Your task to perform on an android device: Go to privacy settings Image 0: 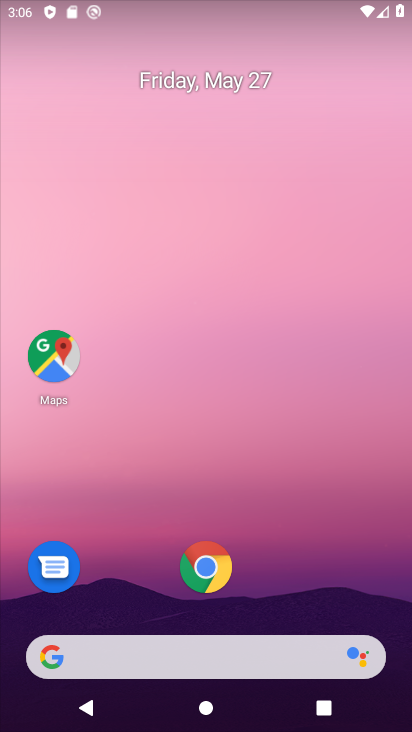
Step 0: drag from (149, 610) to (217, 65)
Your task to perform on an android device: Go to privacy settings Image 1: 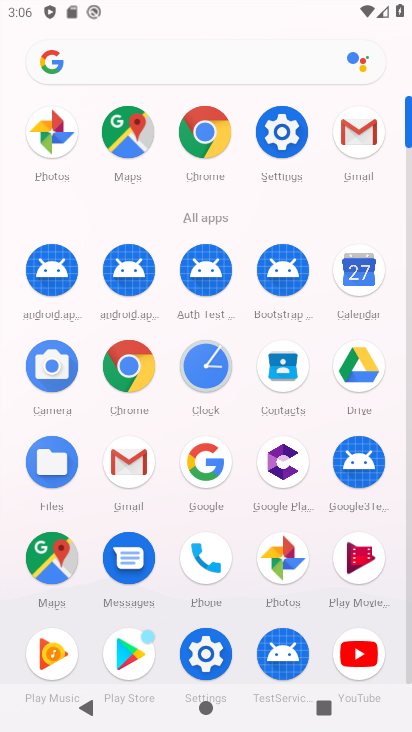
Step 1: click (277, 126)
Your task to perform on an android device: Go to privacy settings Image 2: 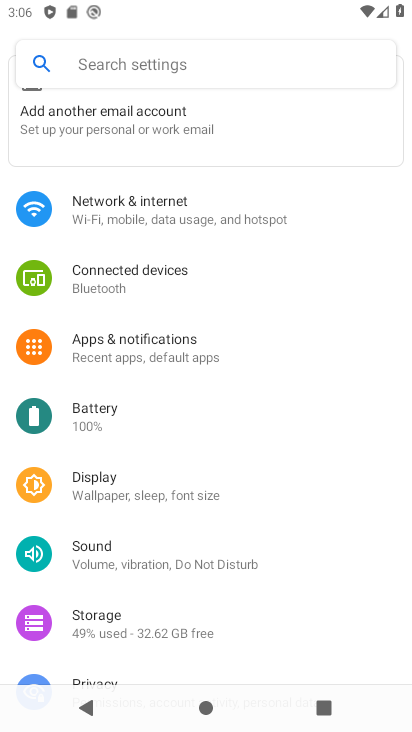
Step 2: drag from (126, 651) to (190, 302)
Your task to perform on an android device: Go to privacy settings Image 3: 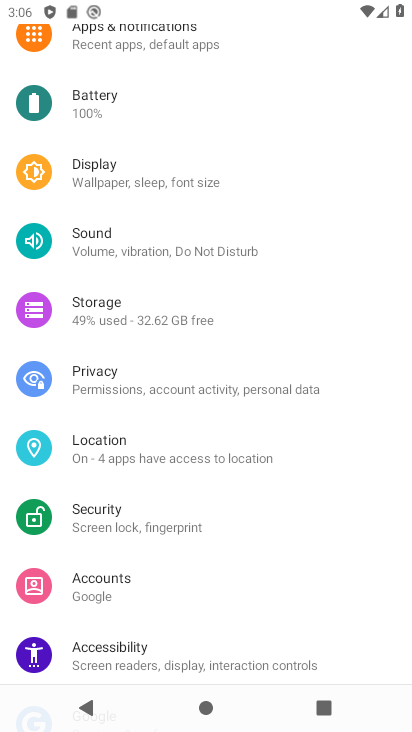
Step 3: click (114, 383)
Your task to perform on an android device: Go to privacy settings Image 4: 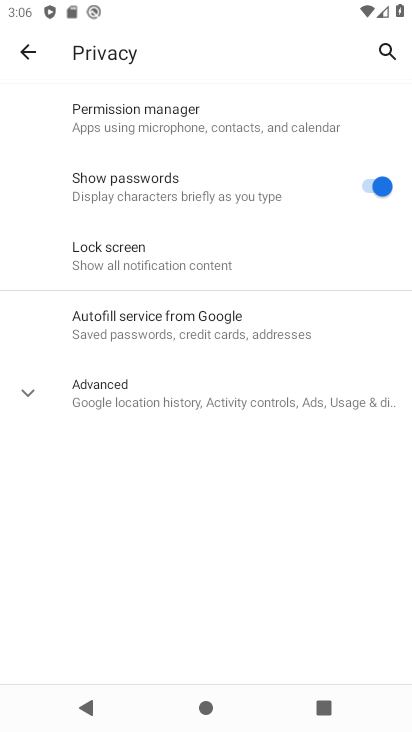
Step 4: task complete